Your task to perform on an android device: turn off smart reply in the gmail app Image 0: 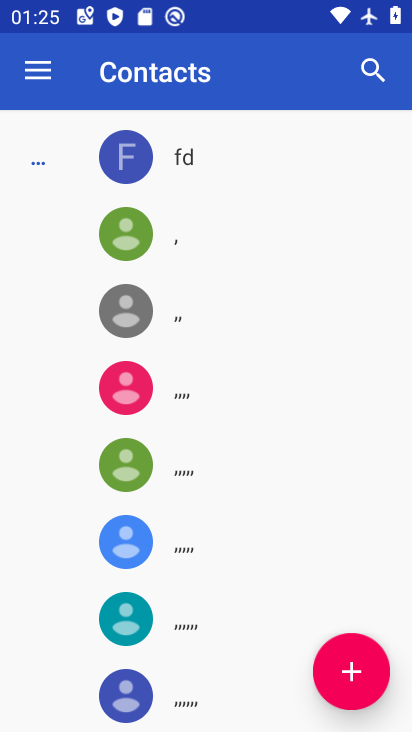
Step 0: press home button
Your task to perform on an android device: turn off smart reply in the gmail app Image 1: 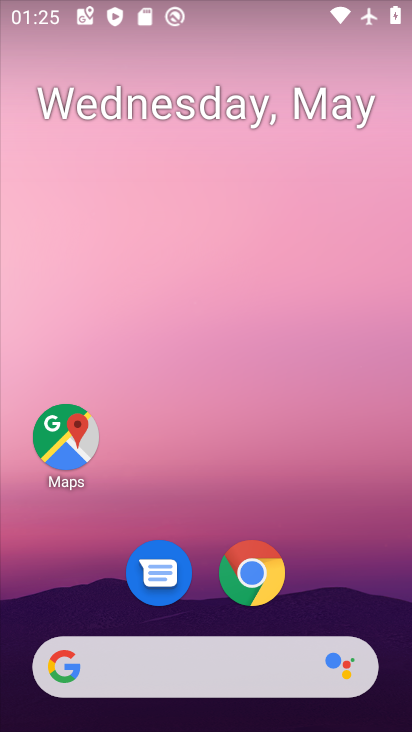
Step 1: drag from (310, 535) to (278, 161)
Your task to perform on an android device: turn off smart reply in the gmail app Image 2: 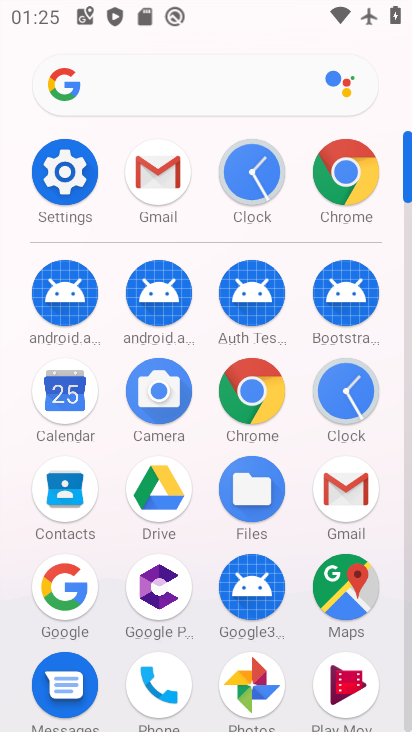
Step 2: click (144, 174)
Your task to perform on an android device: turn off smart reply in the gmail app Image 3: 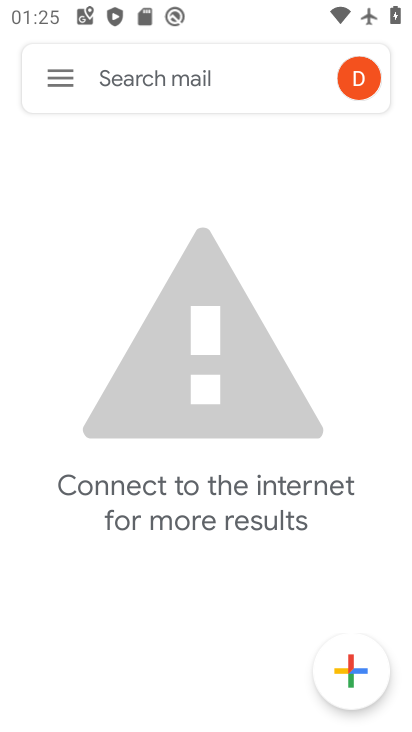
Step 3: click (52, 75)
Your task to perform on an android device: turn off smart reply in the gmail app Image 4: 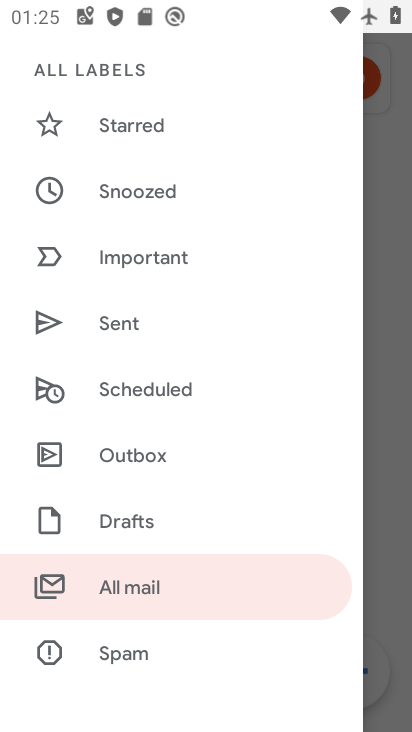
Step 4: drag from (213, 632) to (231, 239)
Your task to perform on an android device: turn off smart reply in the gmail app Image 5: 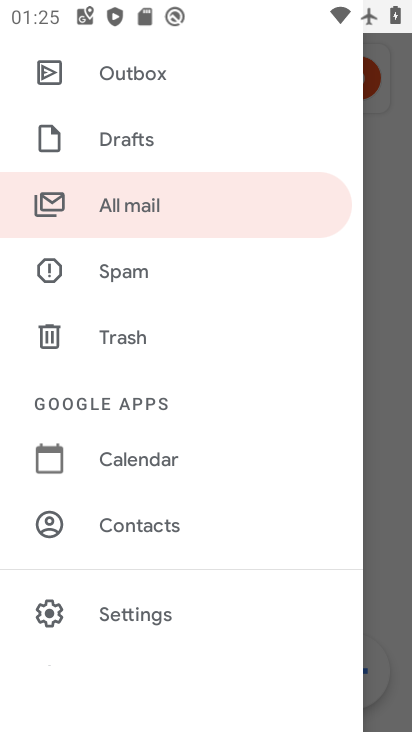
Step 5: click (154, 606)
Your task to perform on an android device: turn off smart reply in the gmail app Image 6: 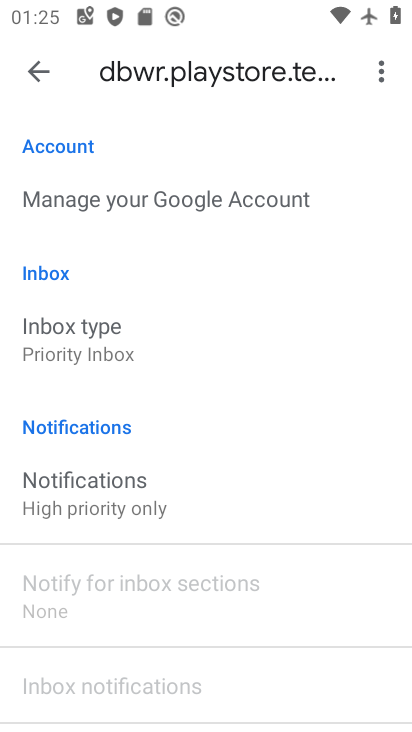
Step 6: task complete